Your task to perform on an android device: toggle improve location accuracy Image 0: 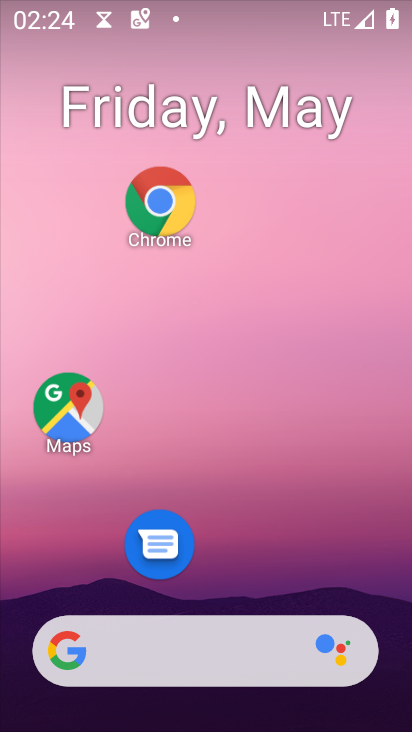
Step 0: press home button
Your task to perform on an android device: toggle improve location accuracy Image 1: 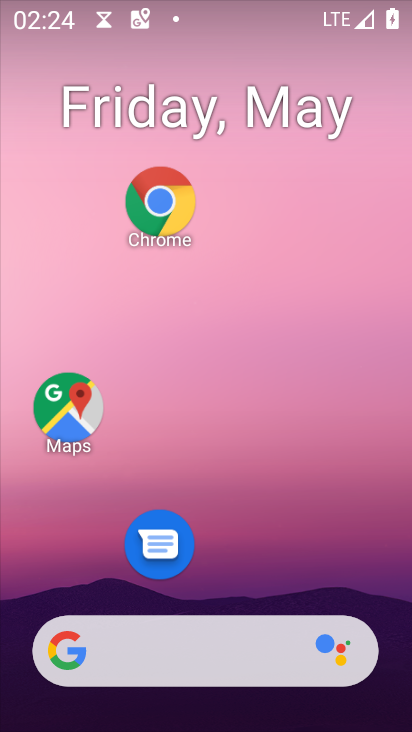
Step 1: drag from (309, 510) to (285, 154)
Your task to perform on an android device: toggle improve location accuracy Image 2: 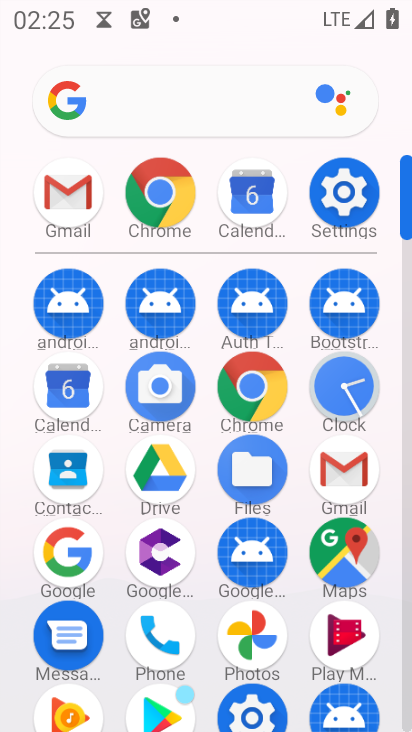
Step 2: click (332, 206)
Your task to perform on an android device: toggle improve location accuracy Image 3: 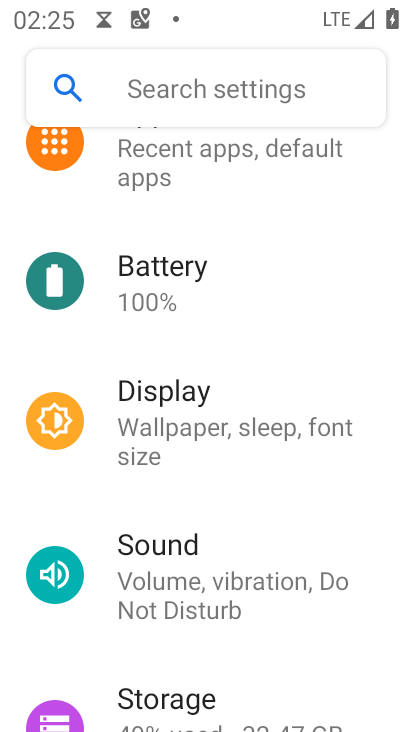
Step 3: drag from (268, 521) to (294, 159)
Your task to perform on an android device: toggle improve location accuracy Image 4: 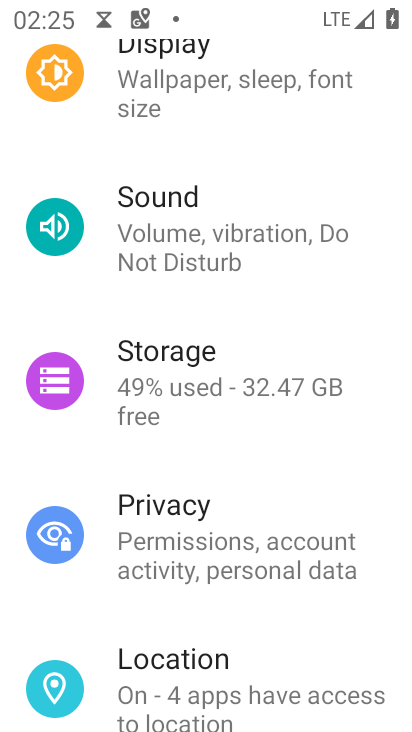
Step 4: drag from (272, 546) to (265, 253)
Your task to perform on an android device: toggle improve location accuracy Image 5: 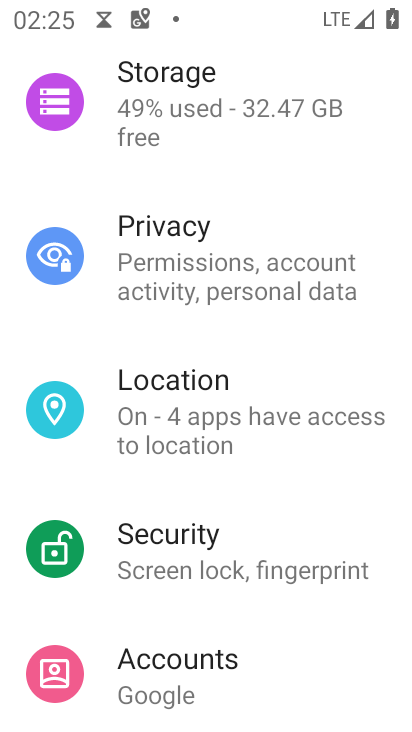
Step 5: drag from (272, 549) to (264, 264)
Your task to perform on an android device: toggle improve location accuracy Image 6: 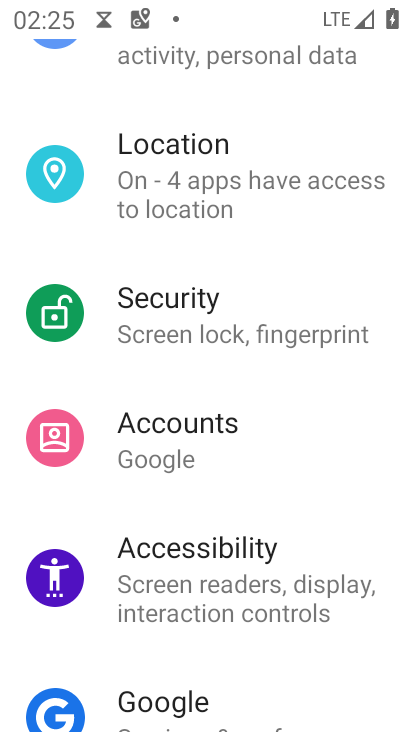
Step 6: drag from (263, 544) to (240, 294)
Your task to perform on an android device: toggle improve location accuracy Image 7: 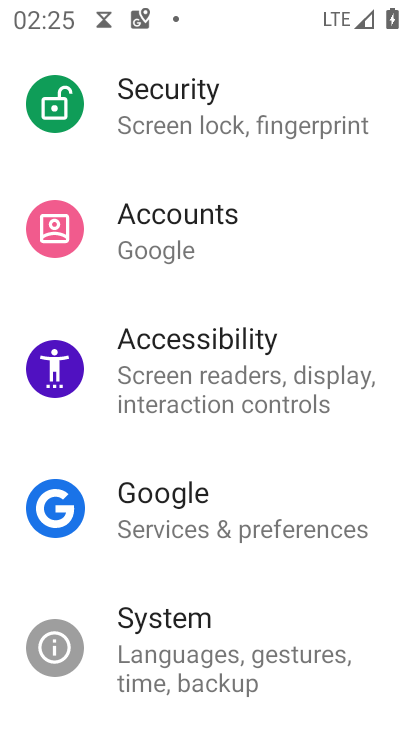
Step 7: drag from (254, 564) to (279, 246)
Your task to perform on an android device: toggle improve location accuracy Image 8: 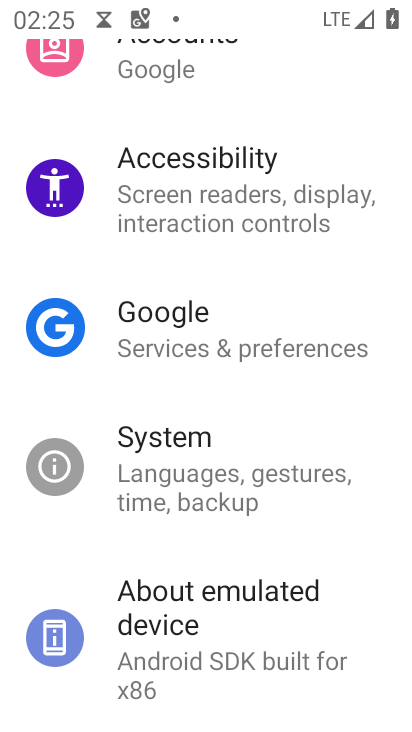
Step 8: drag from (253, 187) to (312, 567)
Your task to perform on an android device: toggle improve location accuracy Image 9: 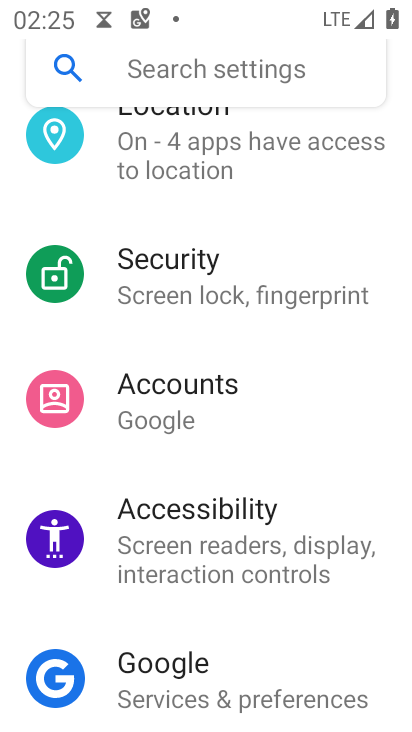
Step 9: drag from (244, 192) to (335, 597)
Your task to perform on an android device: toggle improve location accuracy Image 10: 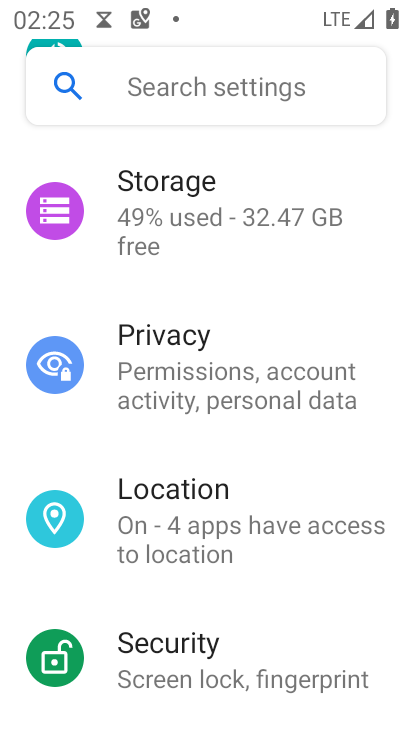
Step 10: drag from (245, 268) to (294, 630)
Your task to perform on an android device: toggle improve location accuracy Image 11: 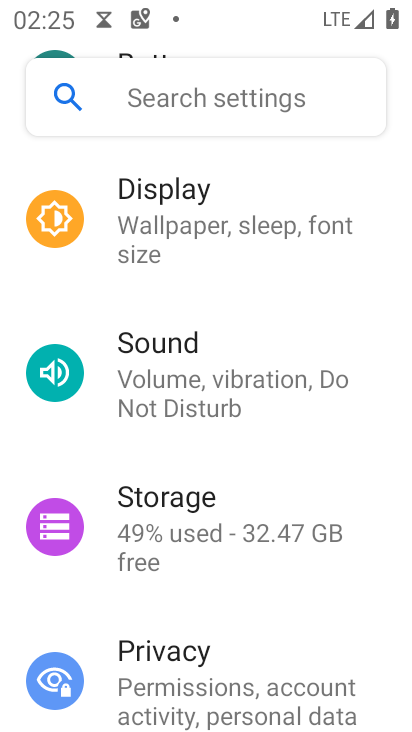
Step 11: drag from (242, 295) to (316, 662)
Your task to perform on an android device: toggle improve location accuracy Image 12: 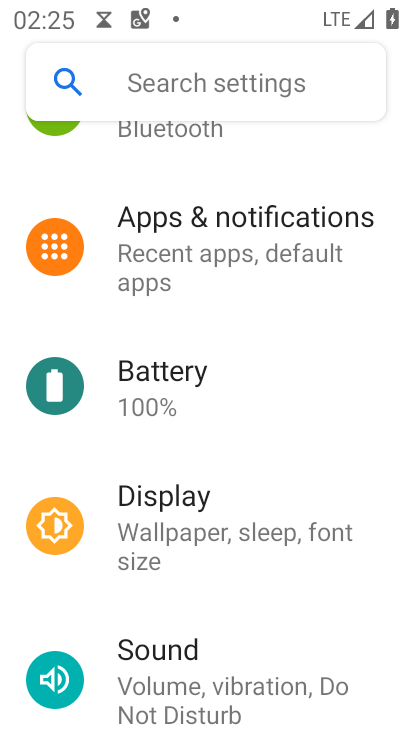
Step 12: drag from (276, 364) to (322, 652)
Your task to perform on an android device: toggle improve location accuracy Image 13: 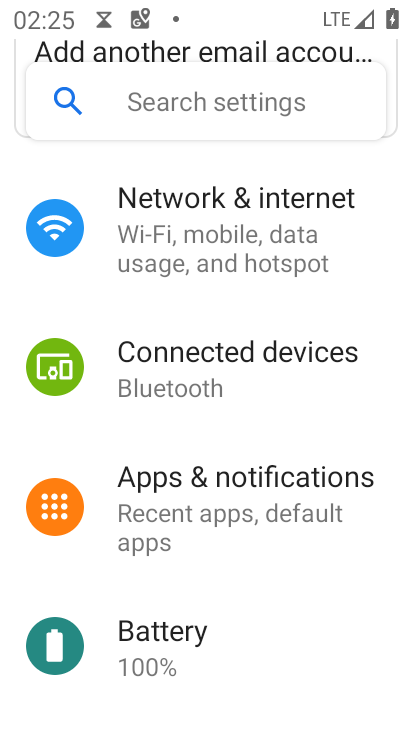
Step 13: drag from (293, 556) to (260, 321)
Your task to perform on an android device: toggle improve location accuracy Image 14: 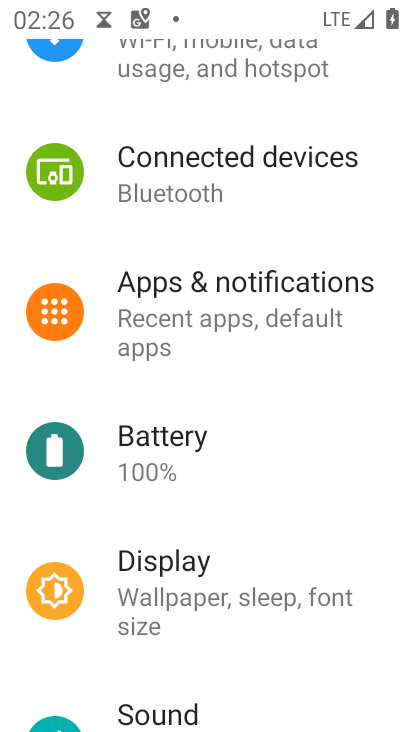
Step 14: drag from (287, 544) to (276, 306)
Your task to perform on an android device: toggle improve location accuracy Image 15: 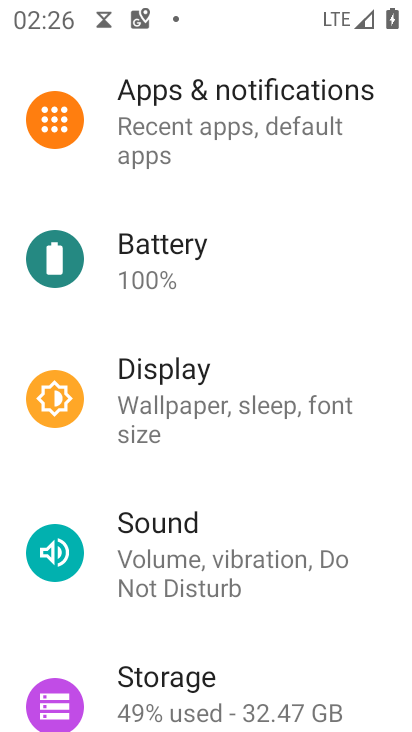
Step 15: drag from (287, 560) to (280, 325)
Your task to perform on an android device: toggle improve location accuracy Image 16: 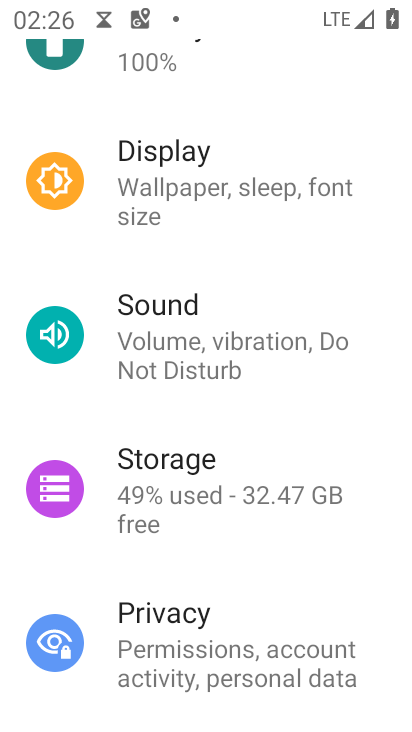
Step 16: drag from (258, 309) to (300, 580)
Your task to perform on an android device: toggle improve location accuracy Image 17: 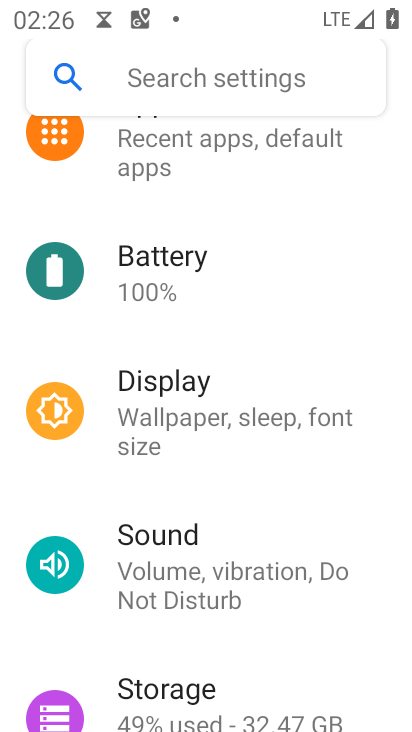
Step 17: drag from (265, 543) to (263, 223)
Your task to perform on an android device: toggle improve location accuracy Image 18: 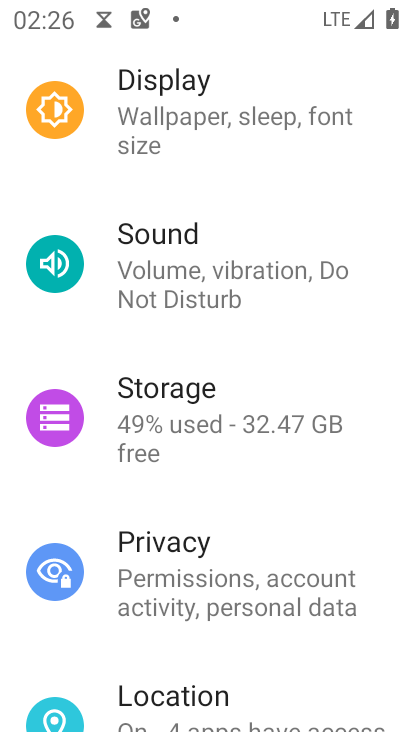
Step 18: drag from (257, 516) to (250, 274)
Your task to perform on an android device: toggle improve location accuracy Image 19: 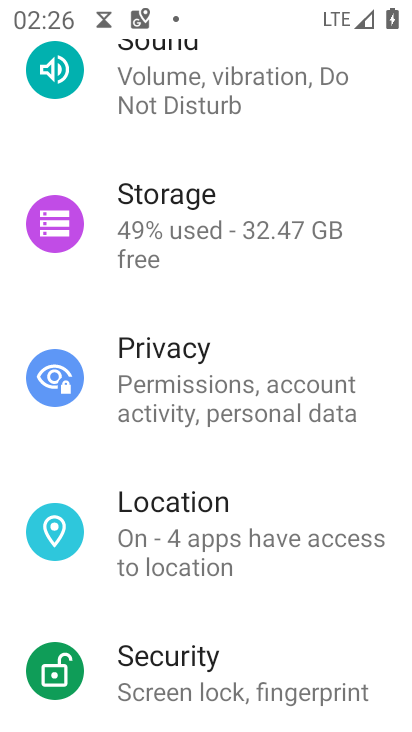
Step 19: click (239, 509)
Your task to perform on an android device: toggle improve location accuracy Image 20: 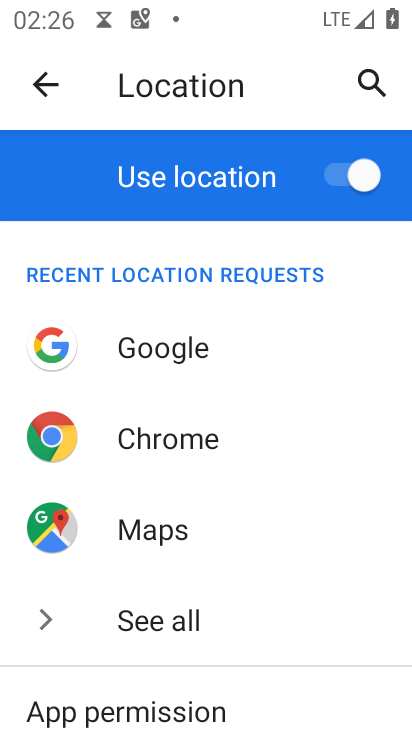
Step 20: drag from (249, 551) to (329, 230)
Your task to perform on an android device: toggle improve location accuracy Image 21: 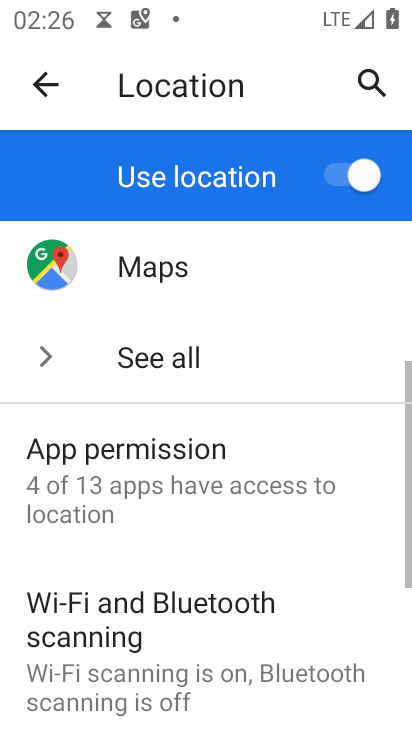
Step 21: drag from (254, 583) to (266, 328)
Your task to perform on an android device: toggle improve location accuracy Image 22: 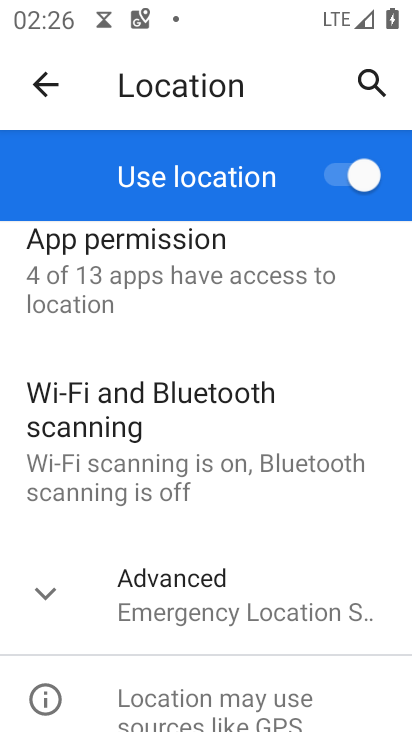
Step 22: click (232, 616)
Your task to perform on an android device: toggle improve location accuracy Image 23: 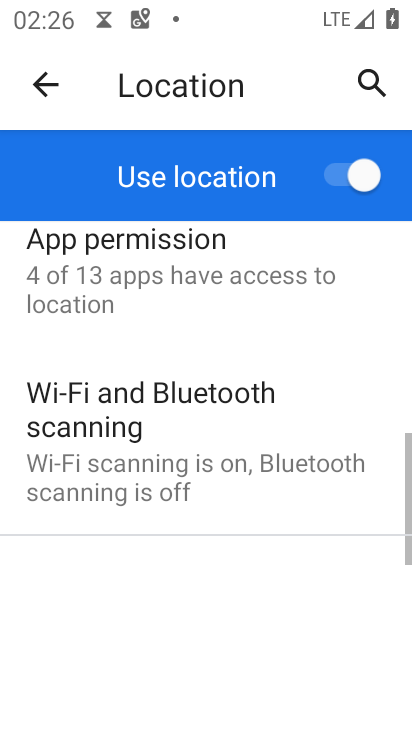
Step 23: drag from (229, 581) to (239, 277)
Your task to perform on an android device: toggle improve location accuracy Image 24: 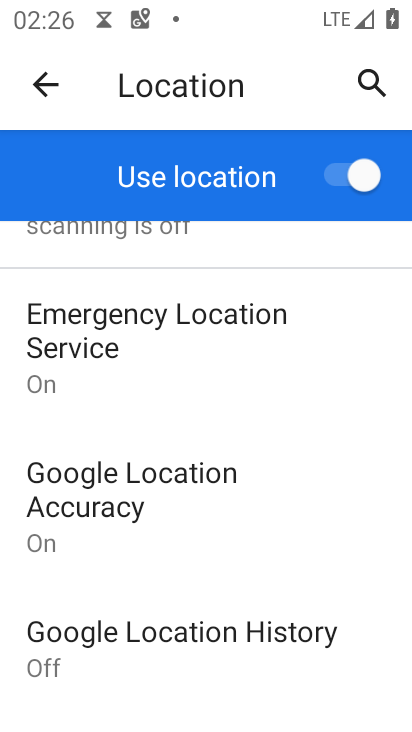
Step 24: drag from (215, 551) to (219, 369)
Your task to perform on an android device: toggle improve location accuracy Image 25: 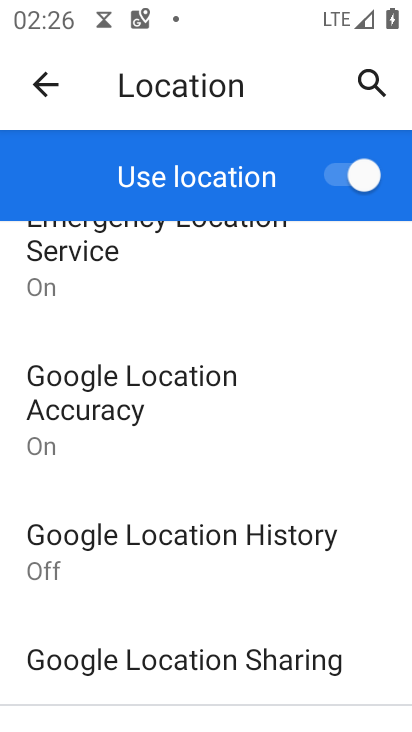
Step 25: click (189, 405)
Your task to perform on an android device: toggle improve location accuracy Image 26: 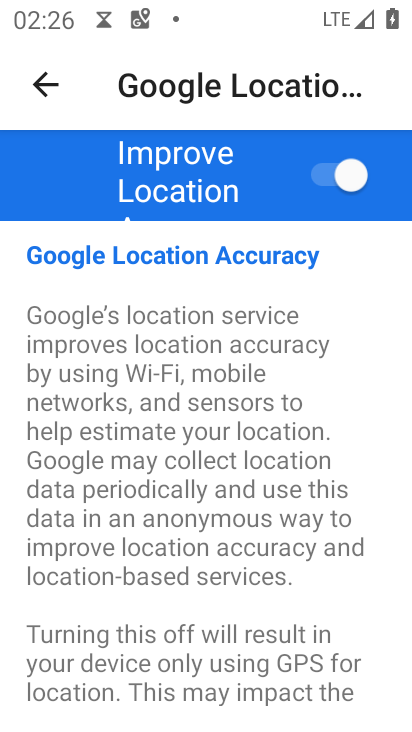
Step 26: click (363, 190)
Your task to perform on an android device: toggle improve location accuracy Image 27: 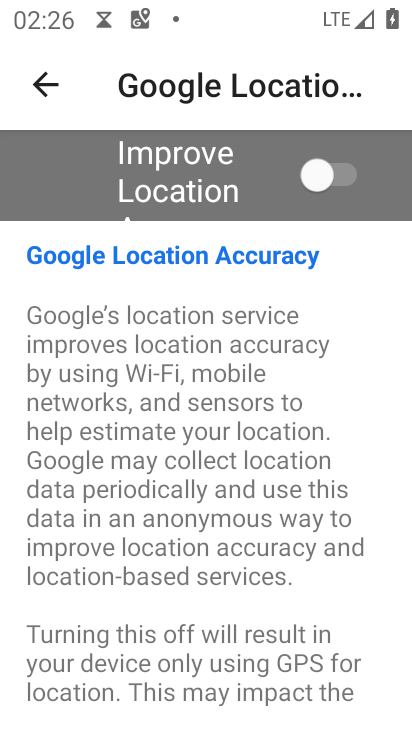
Step 27: task complete